Your task to perform on an android device: What's the weather today? Image 0: 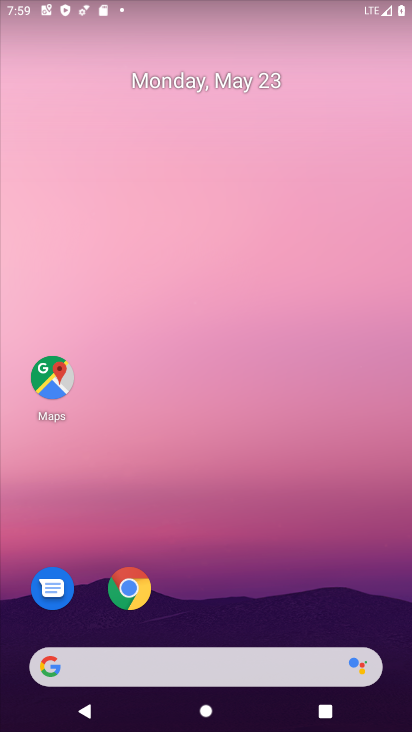
Step 0: drag from (0, 223) to (402, 219)
Your task to perform on an android device: What's the weather today? Image 1: 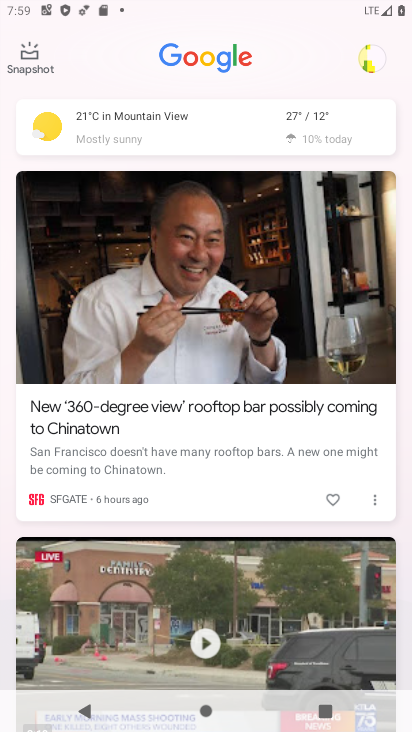
Step 1: click (251, 118)
Your task to perform on an android device: What's the weather today? Image 2: 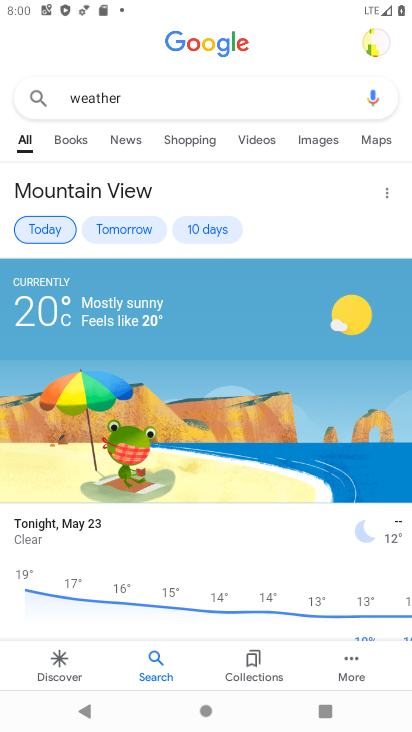
Step 2: click (44, 225)
Your task to perform on an android device: What's the weather today? Image 3: 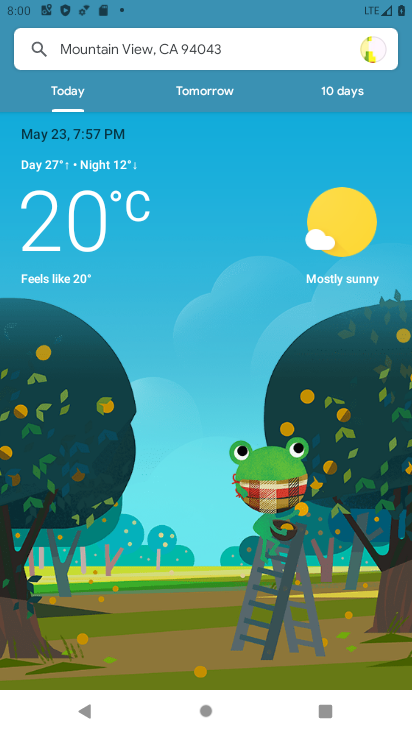
Step 3: task complete